Your task to perform on an android device: Open Youtube and go to the subscriptions tab Image 0: 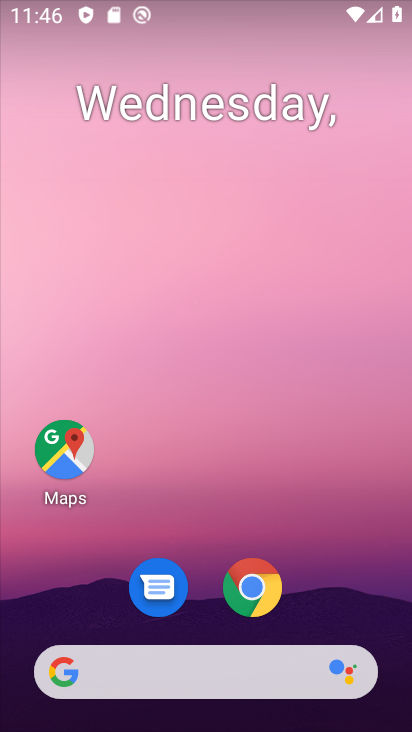
Step 0: drag from (227, 689) to (183, 5)
Your task to perform on an android device: Open Youtube and go to the subscriptions tab Image 1: 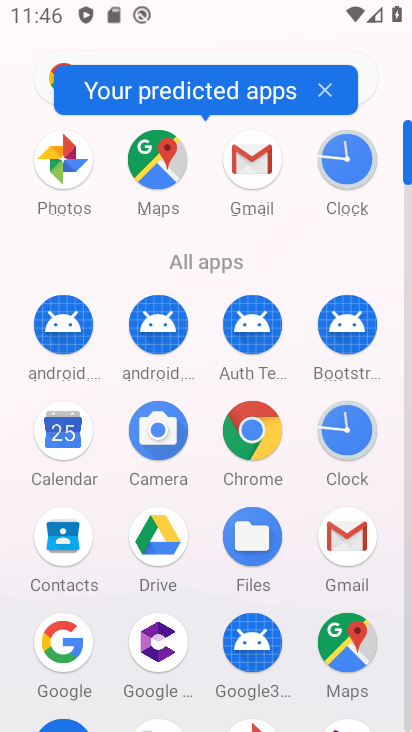
Step 1: drag from (298, 604) to (268, 102)
Your task to perform on an android device: Open Youtube and go to the subscriptions tab Image 2: 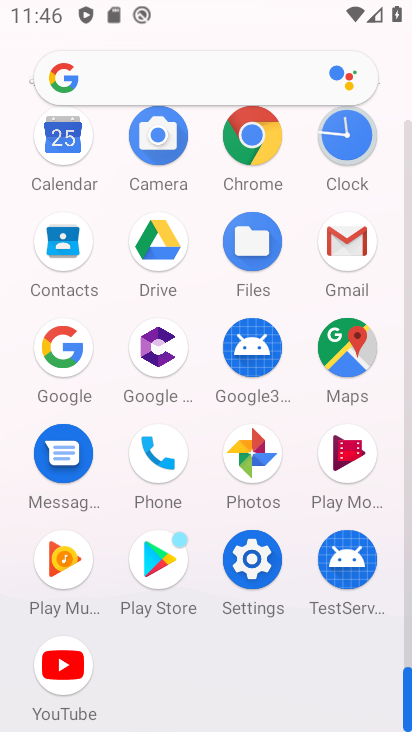
Step 2: click (48, 666)
Your task to perform on an android device: Open Youtube and go to the subscriptions tab Image 3: 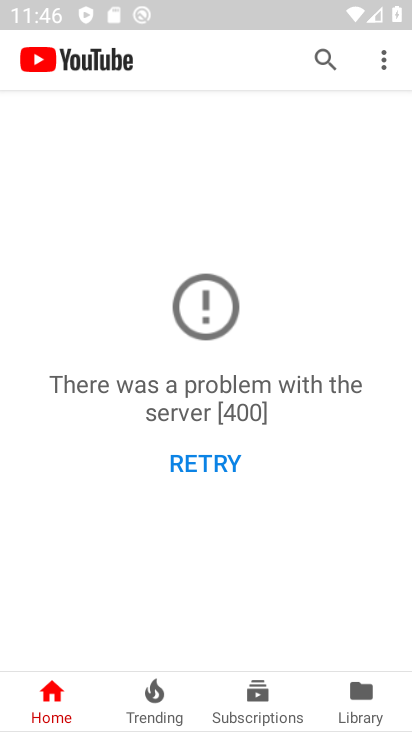
Step 3: click (247, 697)
Your task to perform on an android device: Open Youtube and go to the subscriptions tab Image 4: 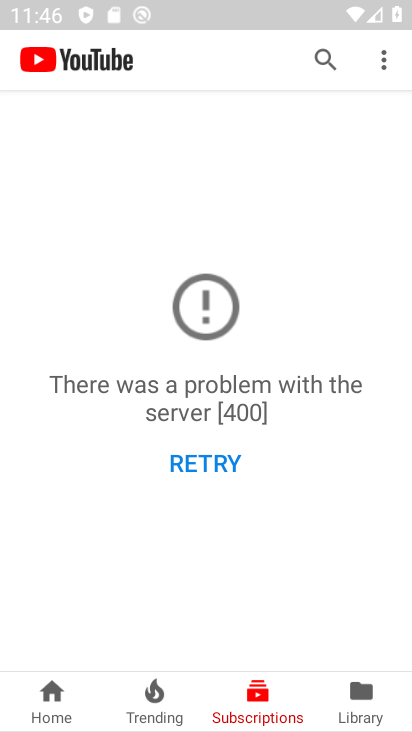
Step 4: task complete